Your task to perform on an android device: Search for "macbook pro" on target.com, select the first entry, add it to the cart, then select checkout. Image 0: 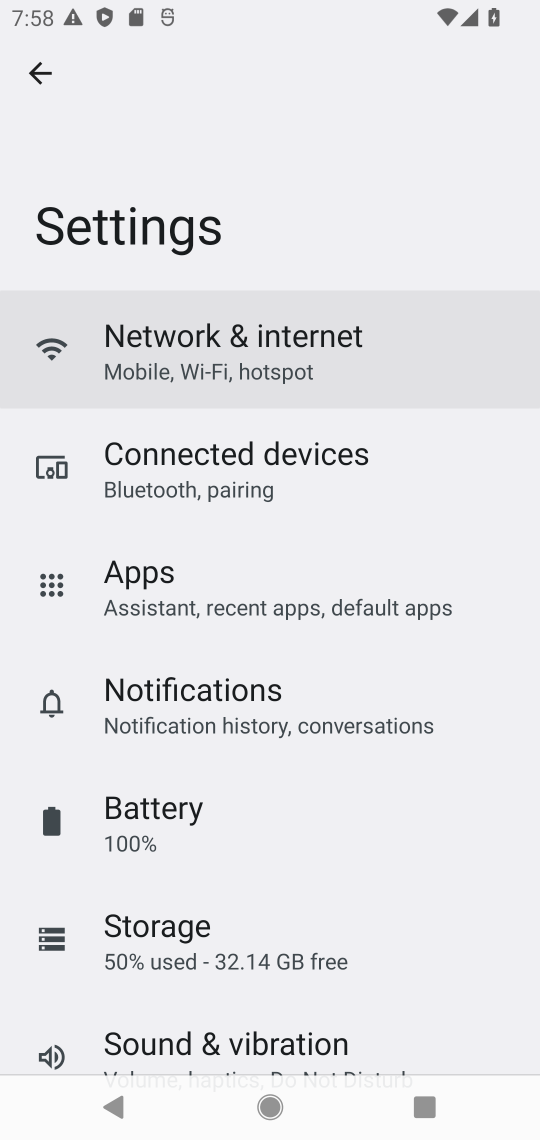
Step 0: press home button
Your task to perform on an android device: Search for "macbook pro" on target.com, select the first entry, add it to the cart, then select checkout. Image 1: 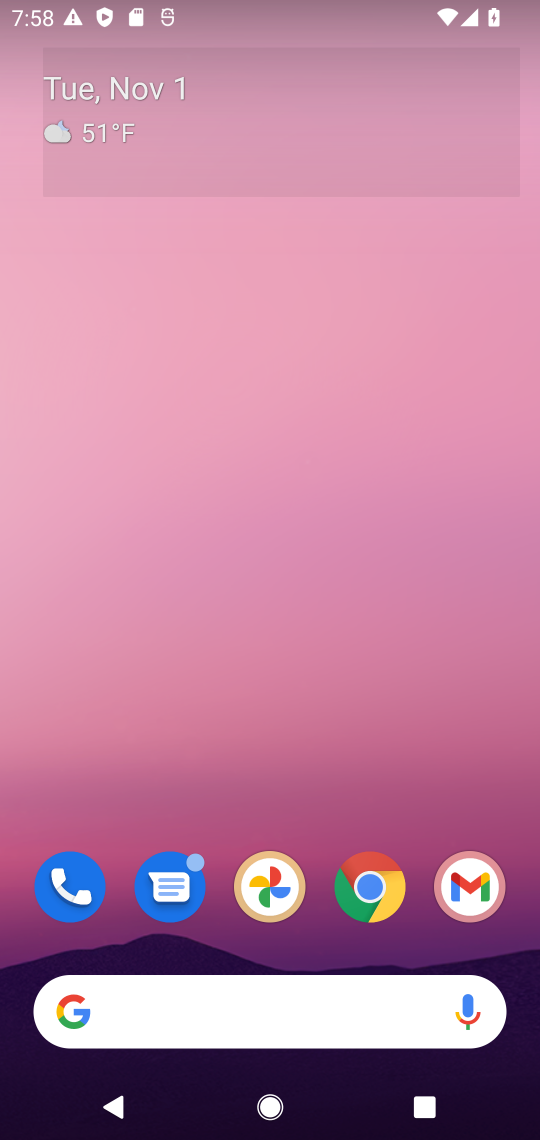
Step 1: drag from (333, 852) to (336, 180)
Your task to perform on an android device: Search for "macbook pro" on target.com, select the first entry, add it to the cart, then select checkout. Image 2: 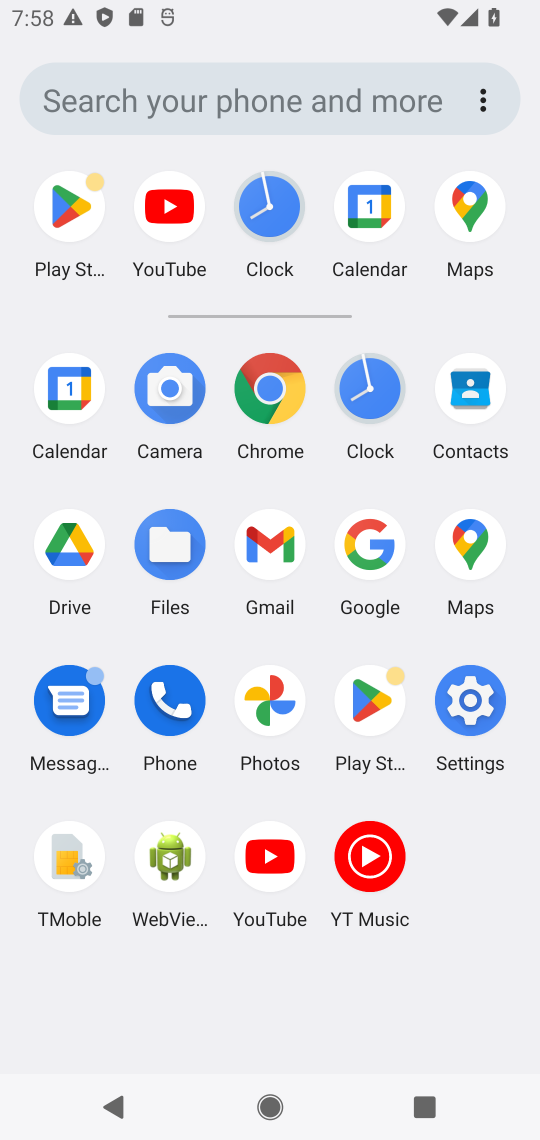
Step 2: click (354, 519)
Your task to perform on an android device: Search for "macbook pro" on target.com, select the first entry, add it to the cart, then select checkout. Image 3: 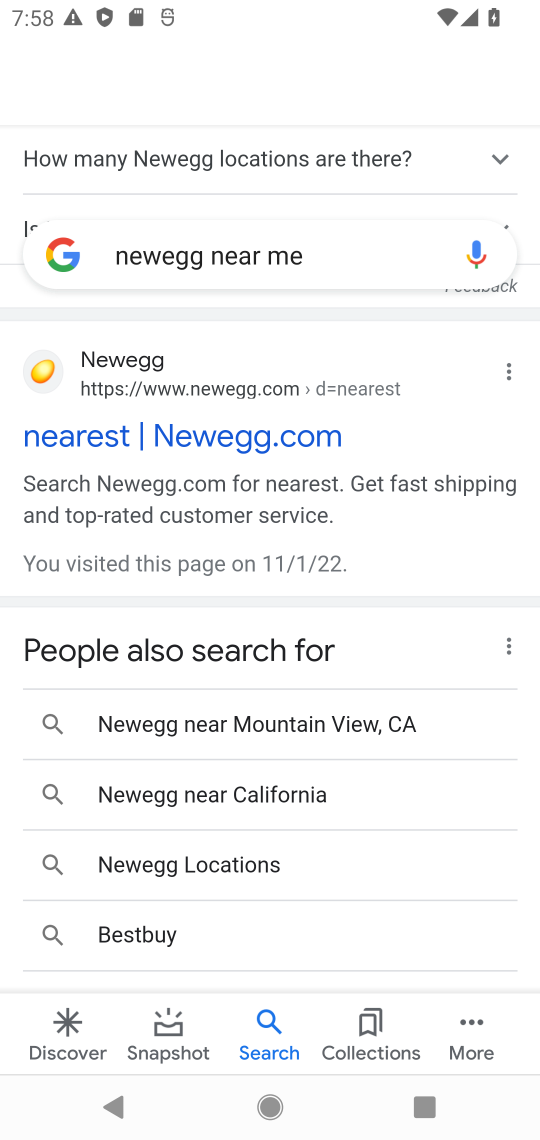
Step 3: click (227, 240)
Your task to perform on an android device: Search for "macbook pro" on target.com, select the first entry, add it to the cart, then select checkout. Image 4: 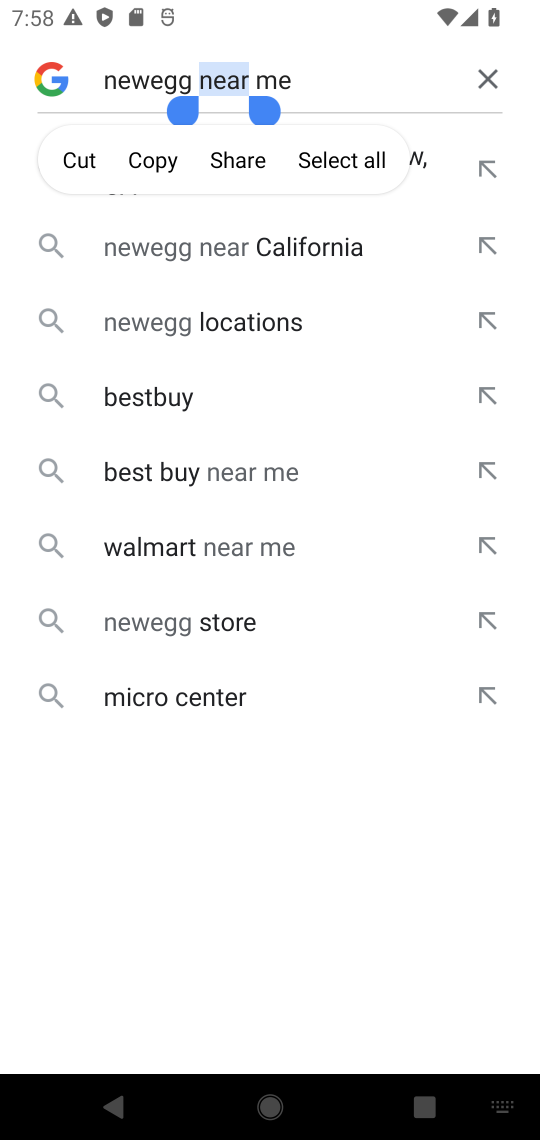
Step 4: click (492, 65)
Your task to perform on an android device: Search for "macbook pro" on target.com, select the first entry, add it to the cart, then select checkout. Image 5: 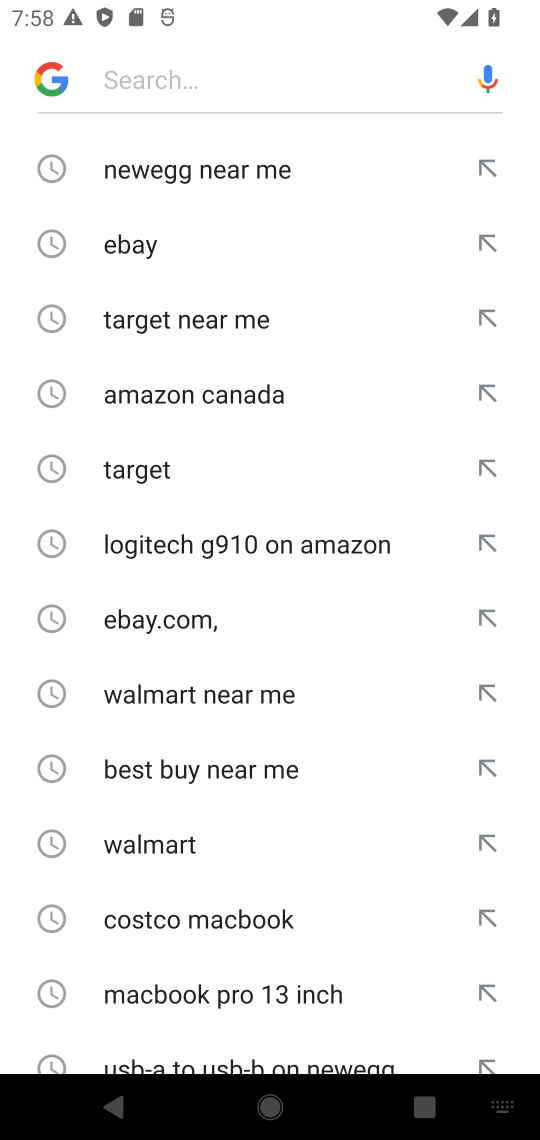
Step 5: click (209, 85)
Your task to perform on an android device: Search for "macbook pro" on target.com, select the first entry, add it to the cart, then select checkout. Image 6: 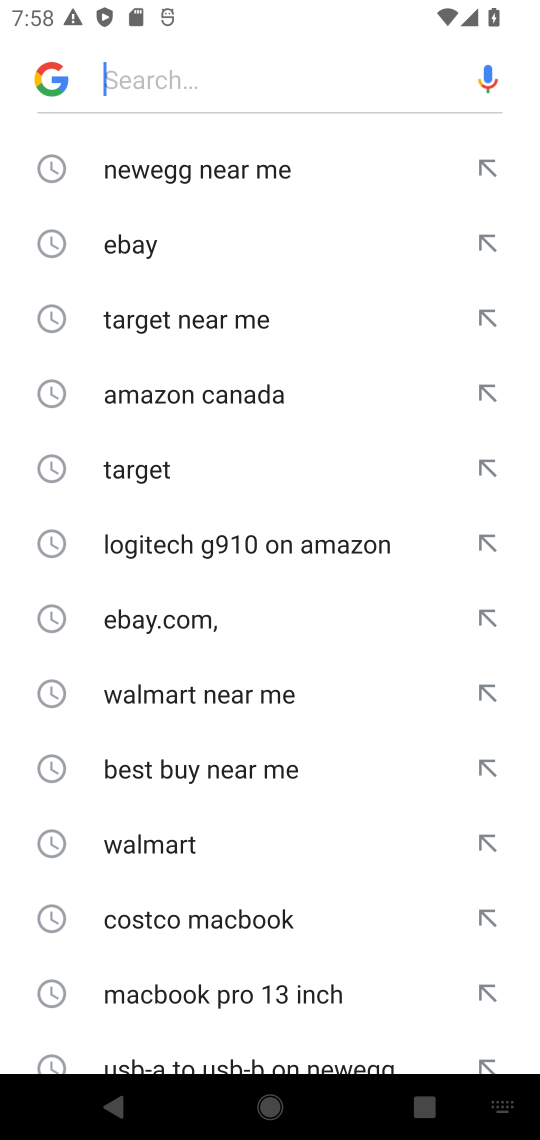
Step 6: type "target "
Your task to perform on an android device: Search for "macbook pro" on target.com, select the first entry, add it to the cart, then select checkout. Image 7: 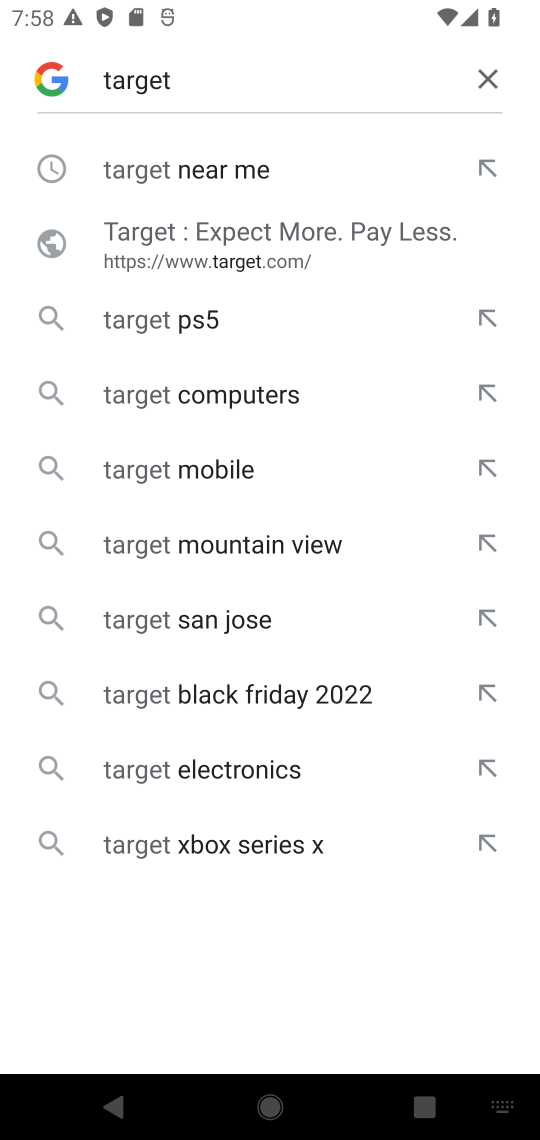
Step 7: click (212, 168)
Your task to perform on an android device: Search for "macbook pro" on target.com, select the first entry, add it to the cart, then select checkout. Image 8: 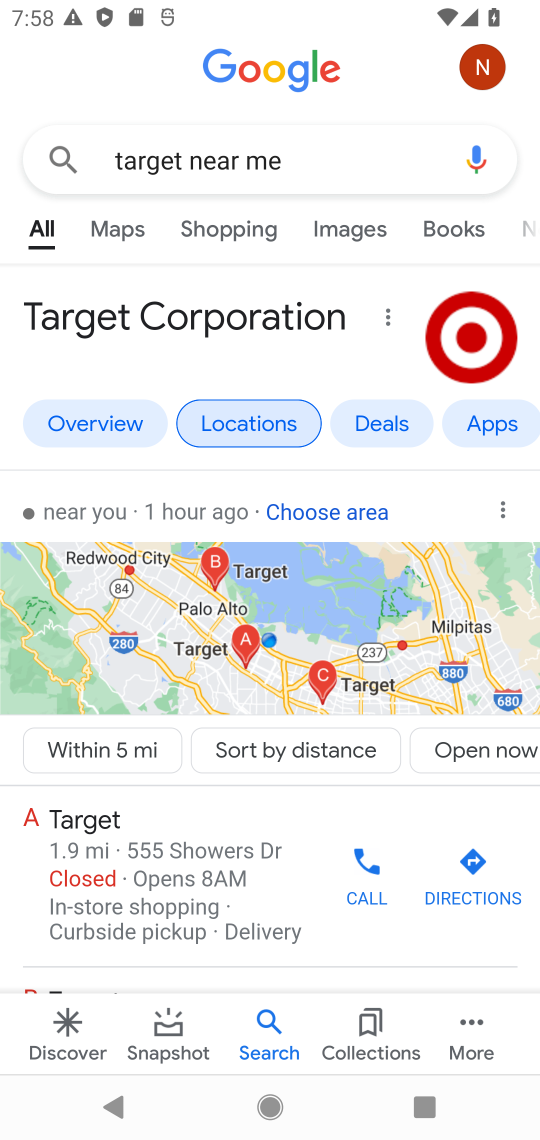
Step 8: drag from (183, 902) to (179, 279)
Your task to perform on an android device: Search for "macbook pro" on target.com, select the first entry, add it to the cart, then select checkout. Image 9: 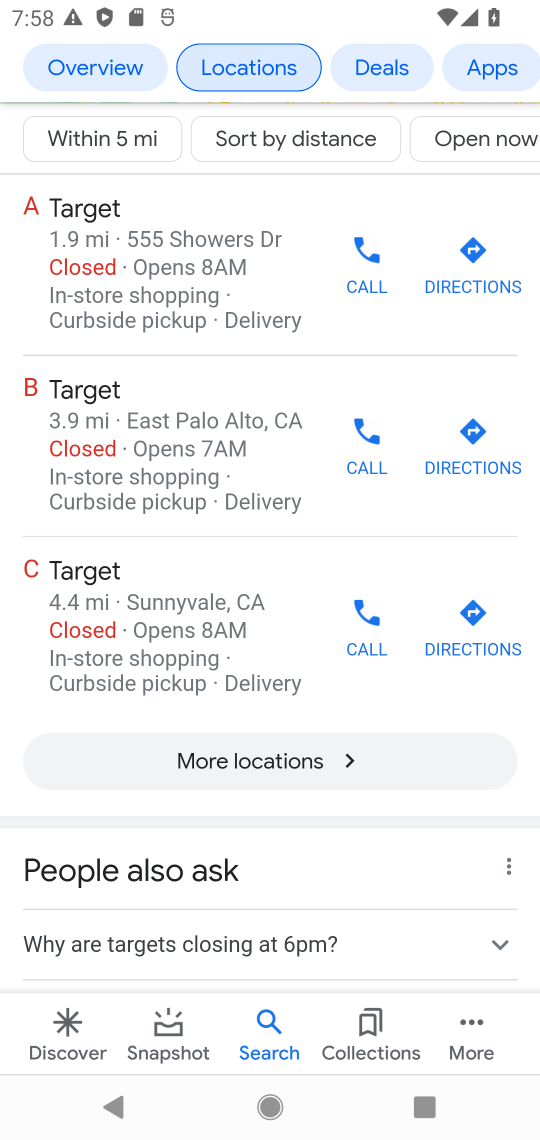
Step 9: drag from (330, 927) to (417, 154)
Your task to perform on an android device: Search for "macbook pro" on target.com, select the first entry, add it to the cart, then select checkout. Image 10: 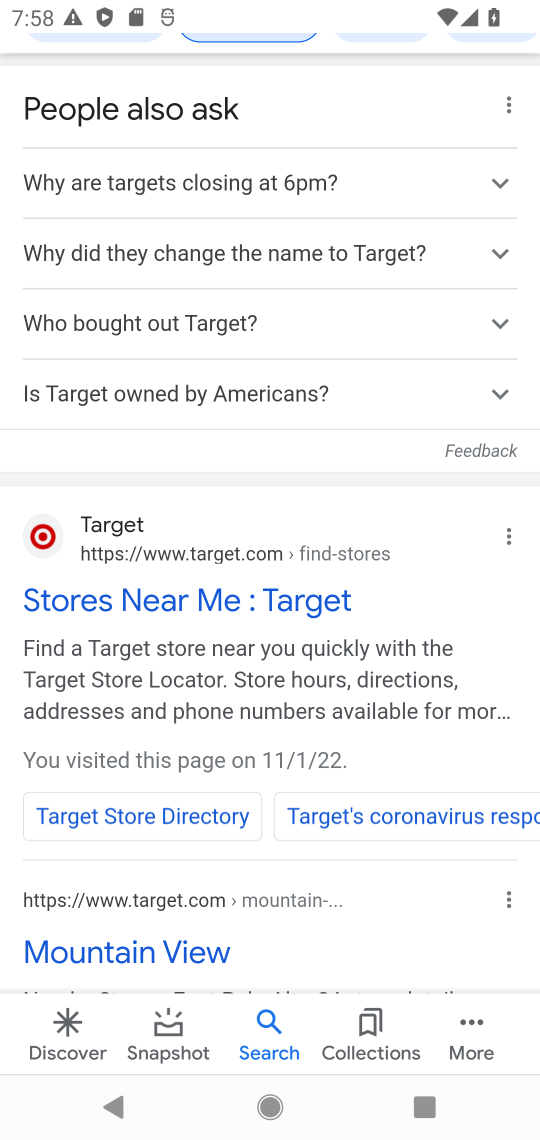
Step 10: click (119, 604)
Your task to perform on an android device: Search for "macbook pro" on target.com, select the first entry, add it to the cart, then select checkout. Image 11: 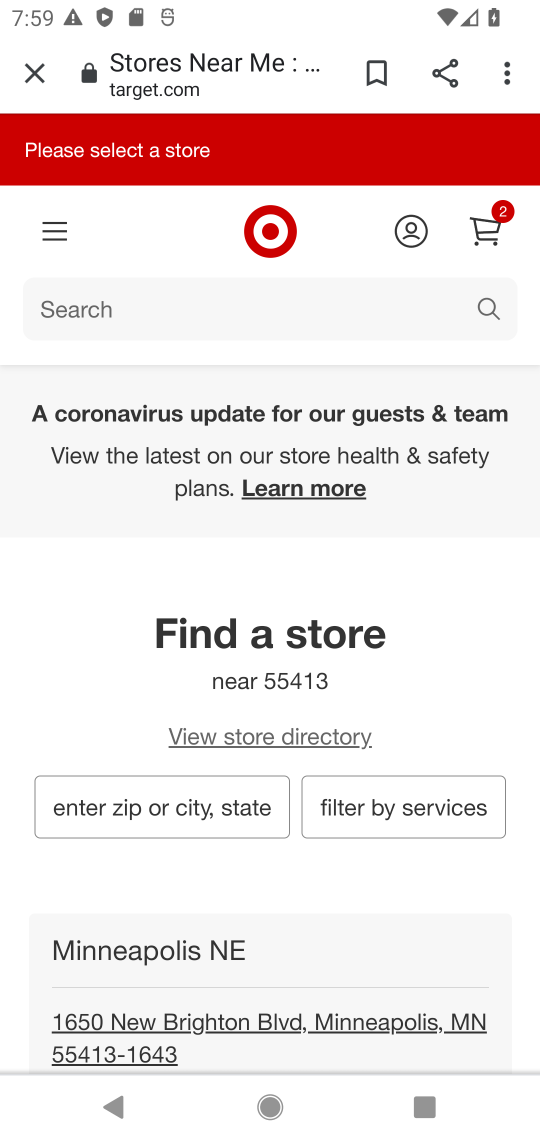
Step 11: click (287, 304)
Your task to perform on an android device: Search for "macbook pro" on target.com, select the first entry, add it to the cart, then select checkout. Image 12: 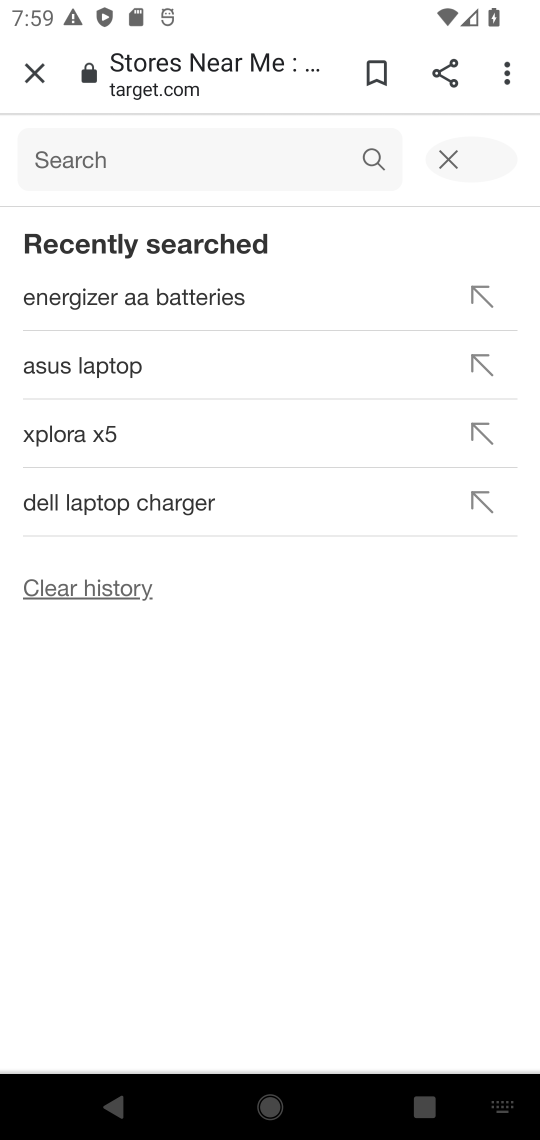
Step 12: type "macbook pro "
Your task to perform on an android device: Search for "macbook pro" on target.com, select the first entry, add it to the cart, then select checkout. Image 13: 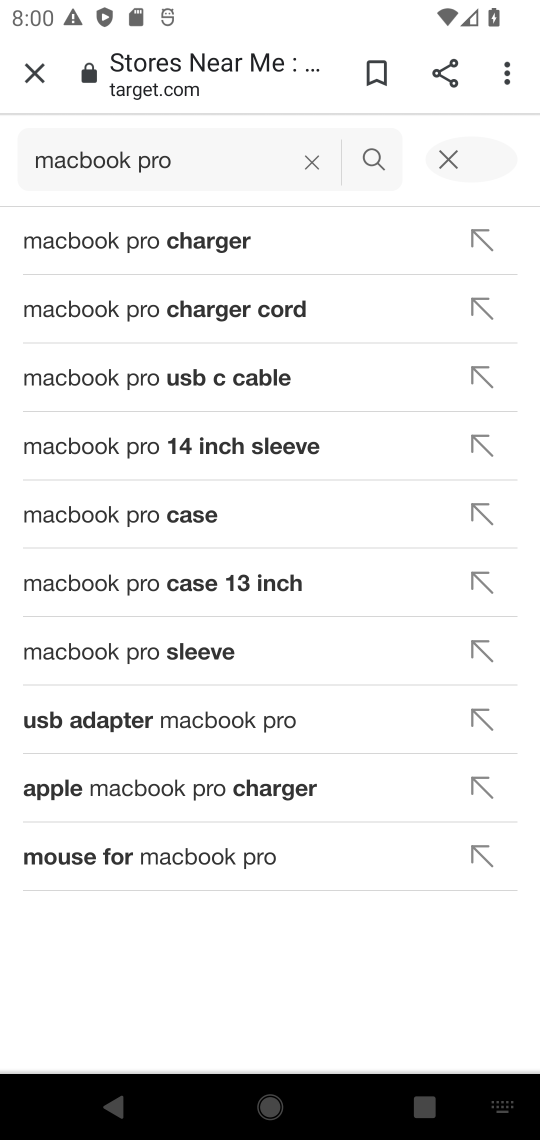
Step 13: click (372, 159)
Your task to perform on an android device: Search for "macbook pro" on target.com, select the first entry, add it to the cart, then select checkout. Image 14: 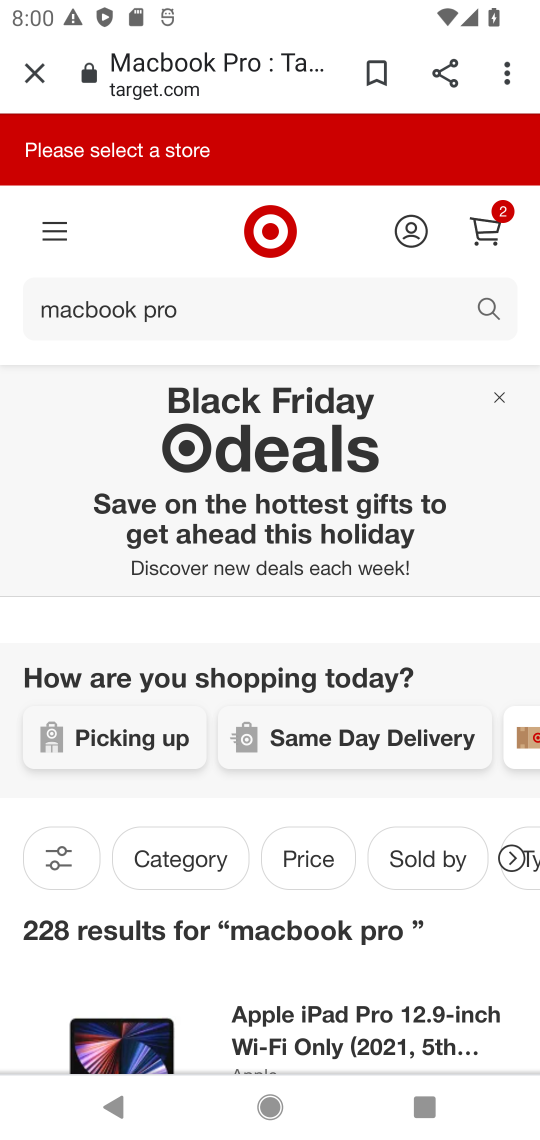
Step 14: click (321, 390)
Your task to perform on an android device: Search for "macbook pro" on target.com, select the first entry, add it to the cart, then select checkout. Image 15: 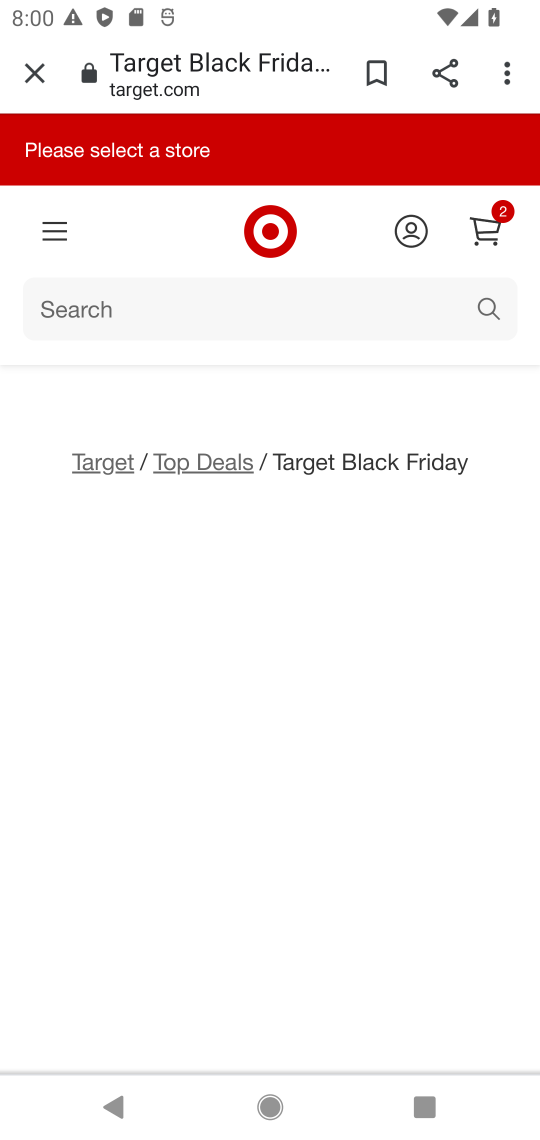
Step 15: drag from (249, 926) to (330, 388)
Your task to perform on an android device: Search for "macbook pro" on target.com, select the first entry, add it to the cart, then select checkout. Image 16: 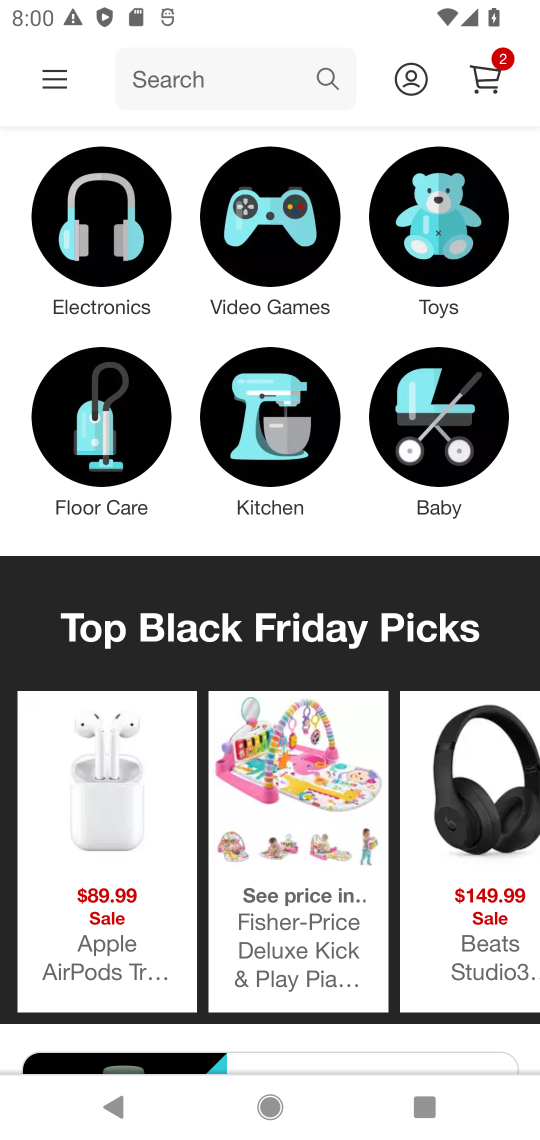
Step 16: drag from (330, 133) to (371, 998)
Your task to perform on an android device: Search for "macbook pro" on target.com, select the first entry, add it to the cart, then select checkout. Image 17: 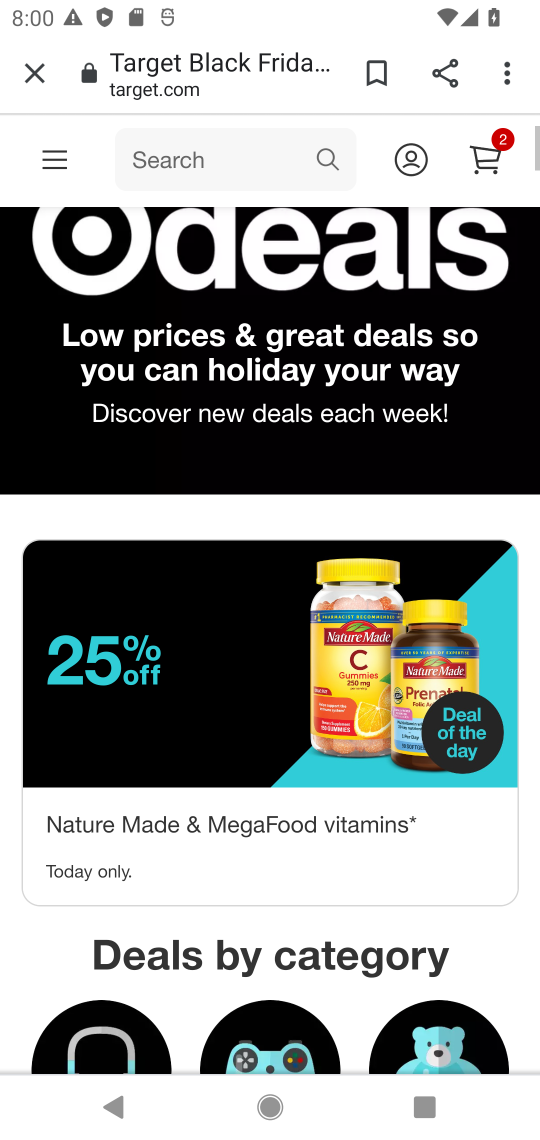
Step 17: drag from (289, 210) to (291, 929)
Your task to perform on an android device: Search for "macbook pro" on target.com, select the first entry, add it to the cart, then select checkout. Image 18: 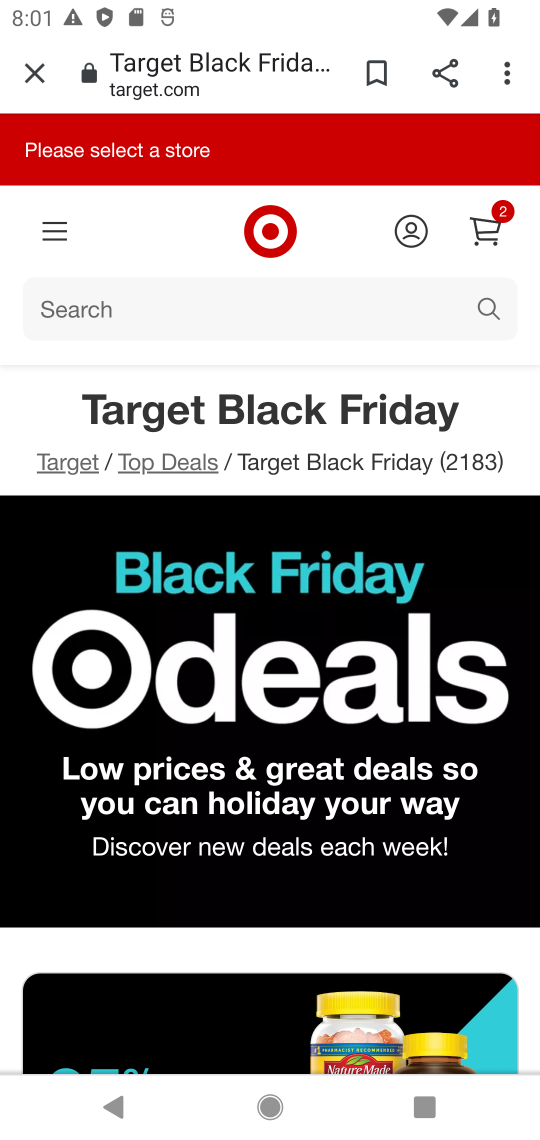
Step 18: click (491, 304)
Your task to perform on an android device: Search for "macbook pro" on target.com, select the first entry, add it to the cart, then select checkout. Image 19: 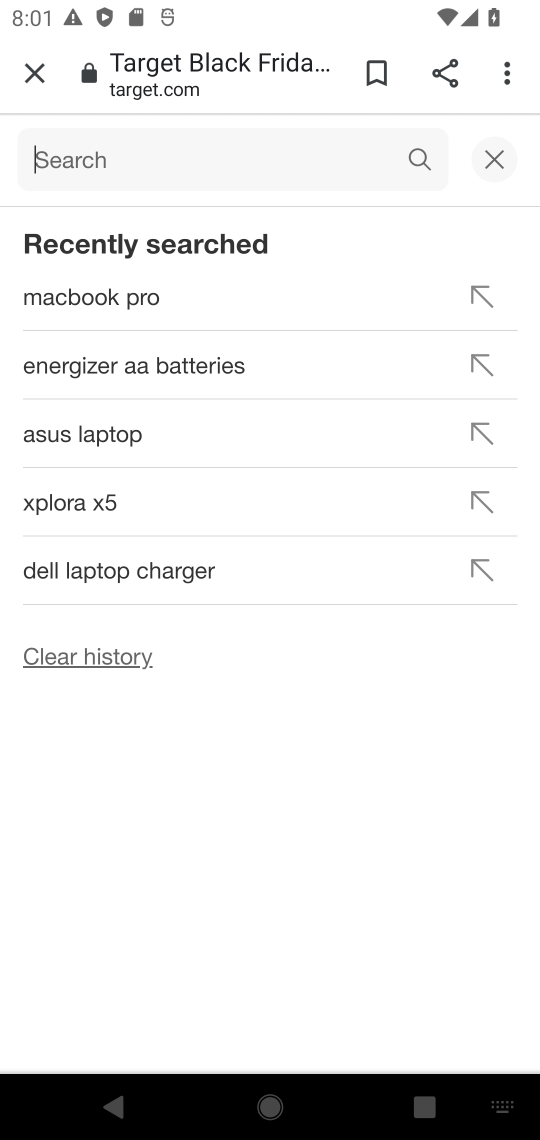
Step 19: click (71, 292)
Your task to perform on an android device: Search for "macbook pro" on target.com, select the first entry, add it to the cart, then select checkout. Image 20: 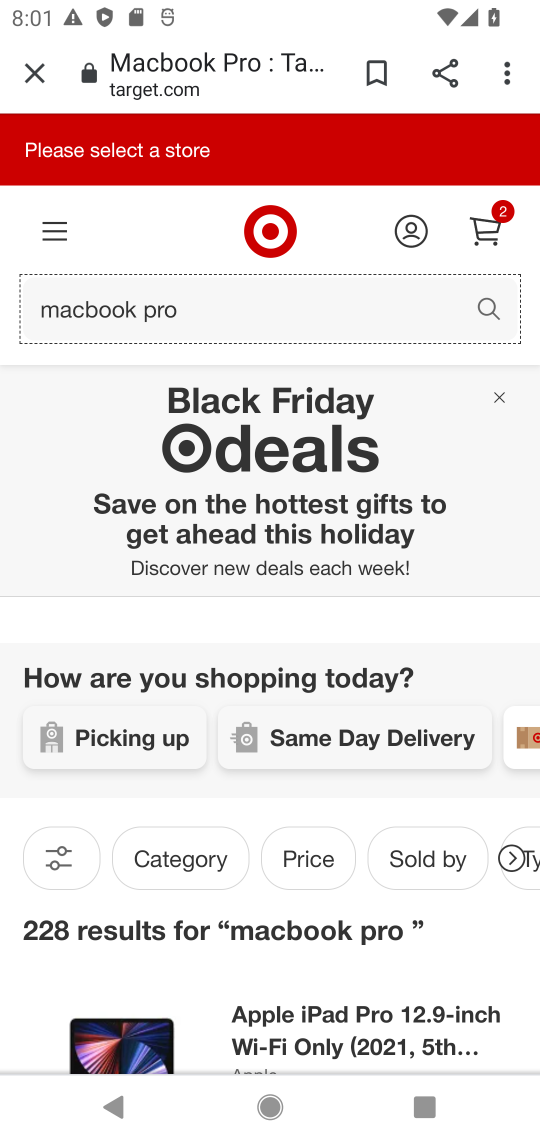
Step 20: drag from (291, 968) to (274, 373)
Your task to perform on an android device: Search for "macbook pro" on target.com, select the first entry, add it to the cart, then select checkout. Image 21: 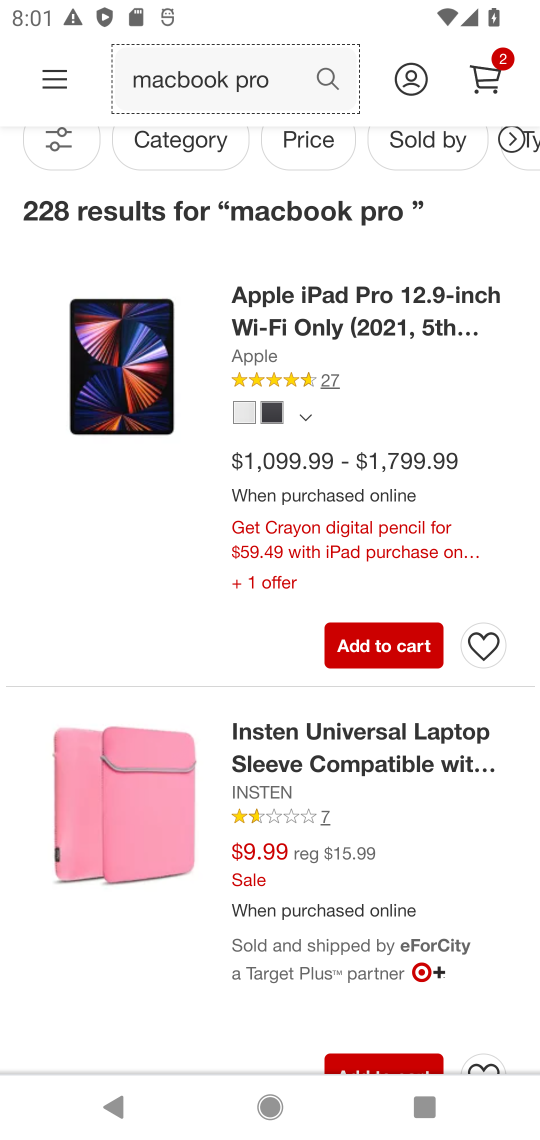
Step 21: click (363, 634)
Your task to perform on an android device: Search for "macbook pro" on target.com, select the first entry, add it to the cart, then select checkout. Image 22: 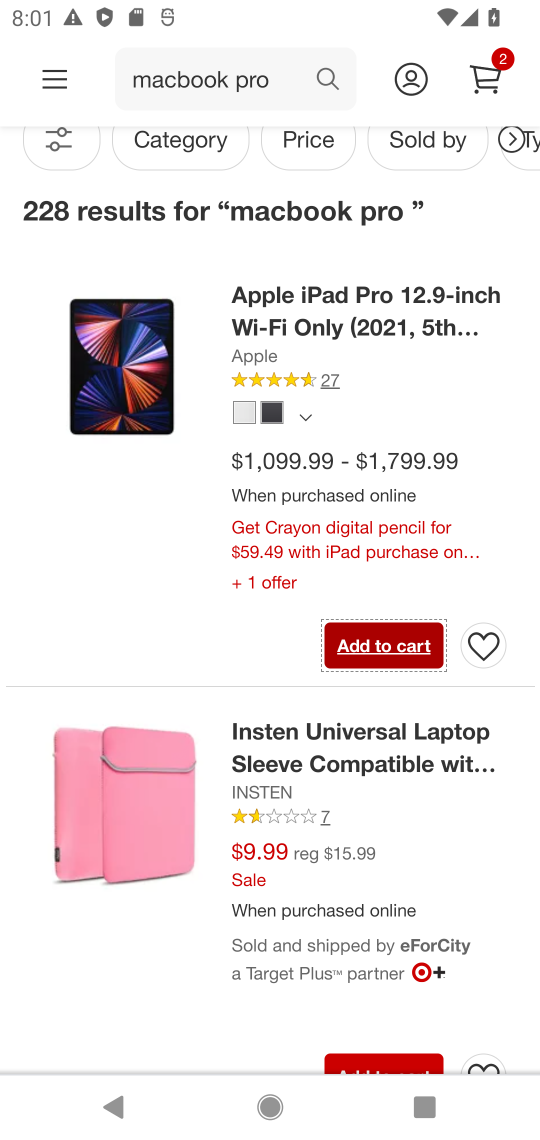
Step 22: click (369, 635)
Your task to perform on an android device: Search for "macbook pro" on target.com, select the first entry, add it to the cart, then select checkout. Image 23: 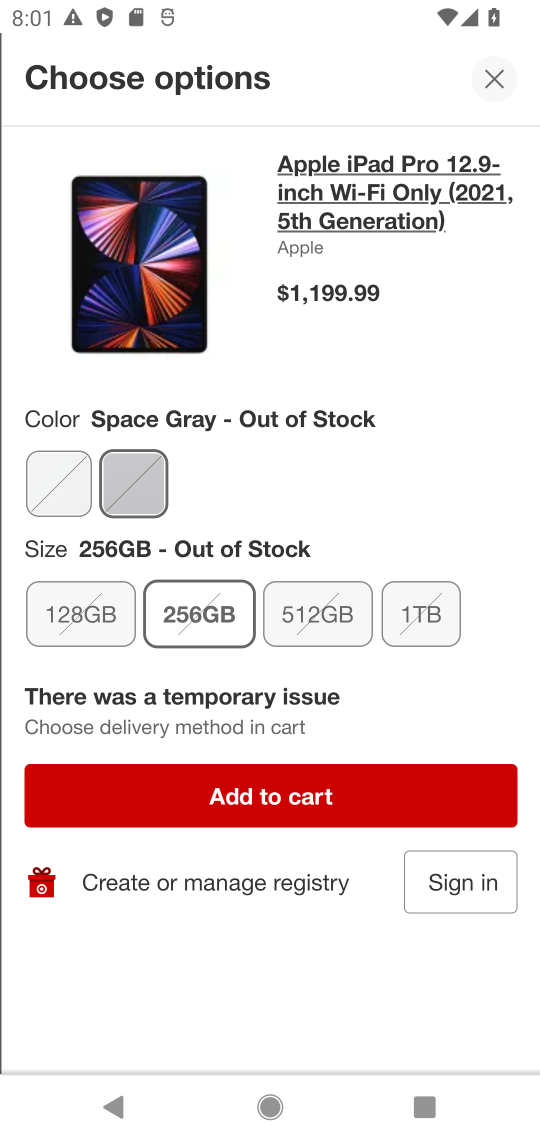
Step 23: click (343, 773)
Your task to perform on an android device: Search for "macbook pro" on target.com, select the first entry, add it to the cart, then select checkout. Image 24: 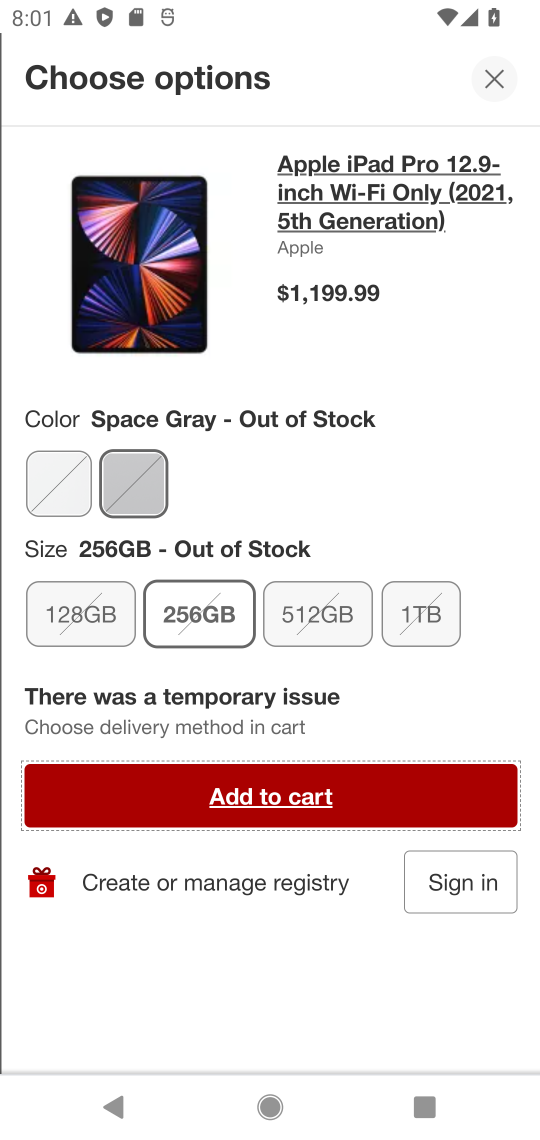
Step 24: click (307, 796)
Your task to perform on an android device: Search for "macbook pro" on target.com, select the first entry, add it to the cart, then select checkout. Image 25: 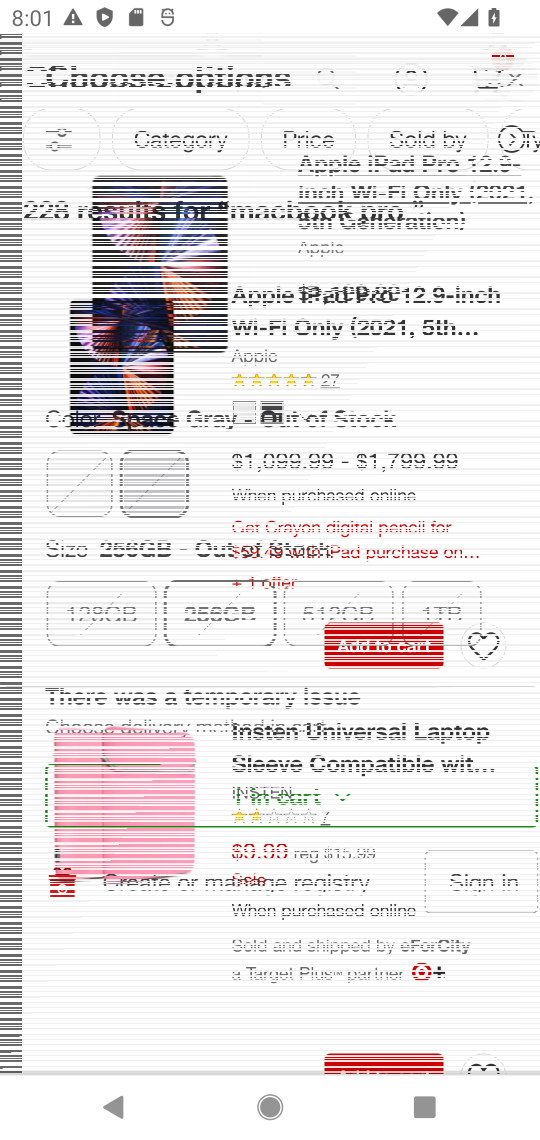
Step 25: click (307, 796)
Your task to perform on an android device: Search for "macbook pro" on target.com, select the first entry, add it to the cart, then select checkout. Image 26: 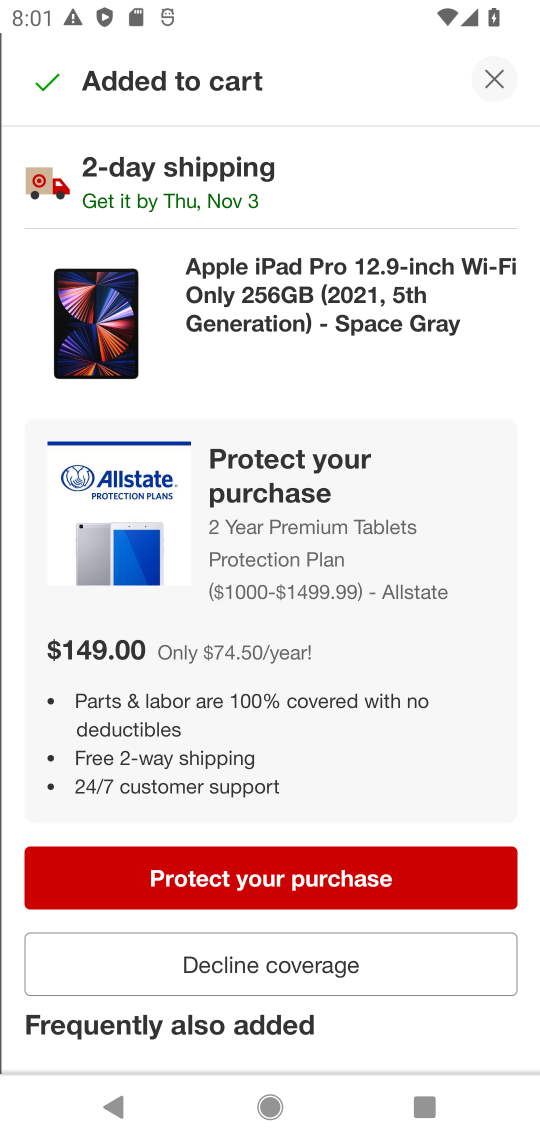
Step 26: task complete